Your task to perform on an android device: Add acer predator to the cart on target.com Image 0: 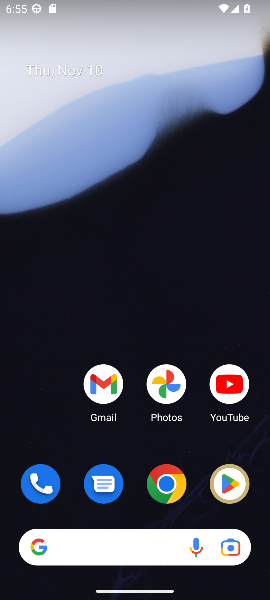
Step 0: click (161, 487)
Your task to perform on an android device: Add acer predator to the cart on target.com Image 1: 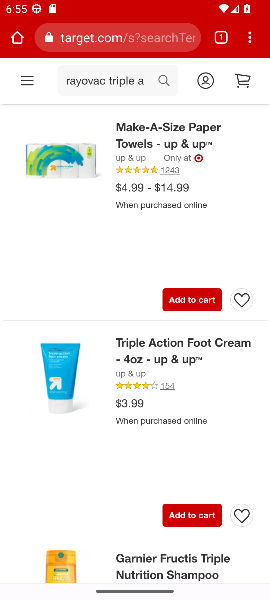
Step 1: click (176, 80)
Your task to perform on an android device: Add acer predator to the cart on target.com Image 2: 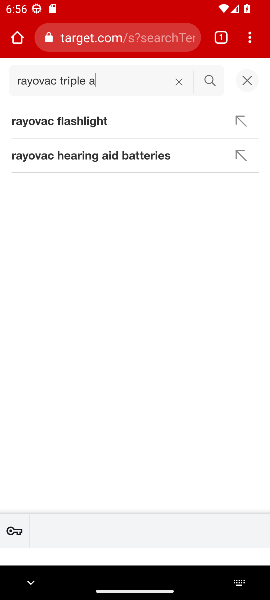
Step 2: click (180, 81)
Your task to perform on an android device: Add acer predator to the cart on target.com Image 3: 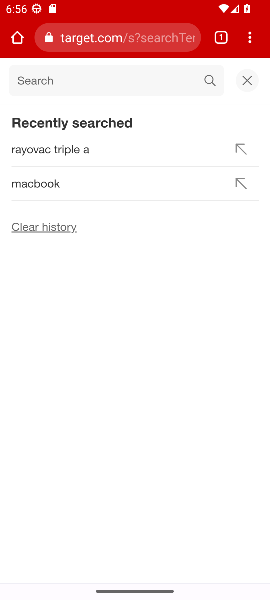
Step 3: type "acer predator"
Your task to perform on an android device: Add acer predator to the cart on target.com Image 4: 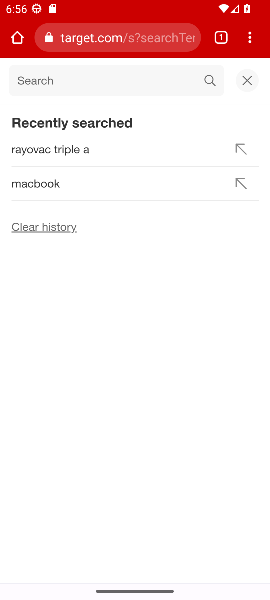
Step 4: click (60, 79)
Your task to perform on an android device: Add acer predator to the cart on target.com Image 5: 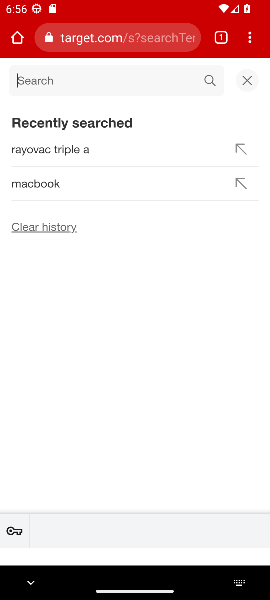
Step 5: type "acer predator"
Your task to perform on an android device: Add acer predator to the cart on target.com Image 6: 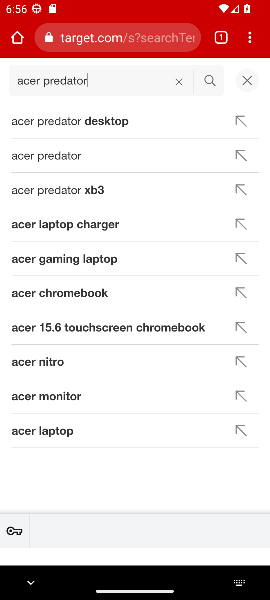
Step 6: click (57, 157)
Your task to perform on an android device: Add acer predator to the cart on target.com Image 7: 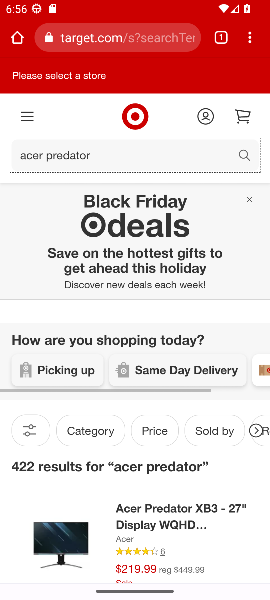
Step 7: drag from (114, 435) to (108, 176)
Your task to perform on an android device: Add acer predator to the cart on target.com Image 8: 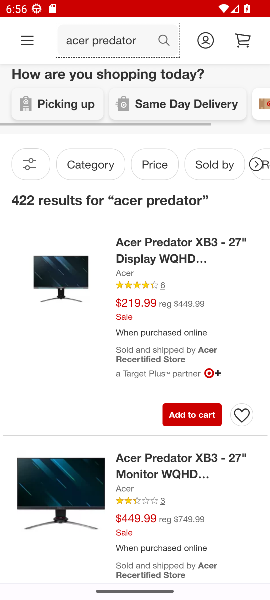
Step 8: click (183, 418)
Your task to perform on an android device: Add acer predator to the cart on target.com Image 9: 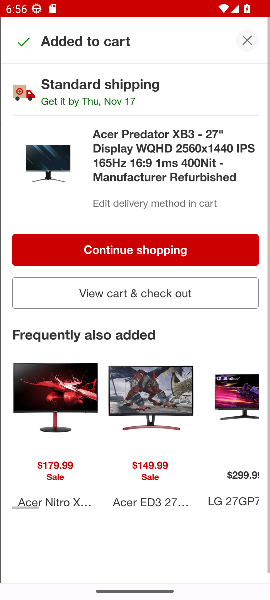
Step 9: task complete